Your task to perform on an android device: turn off notifications settings in the gmail app Image 0: 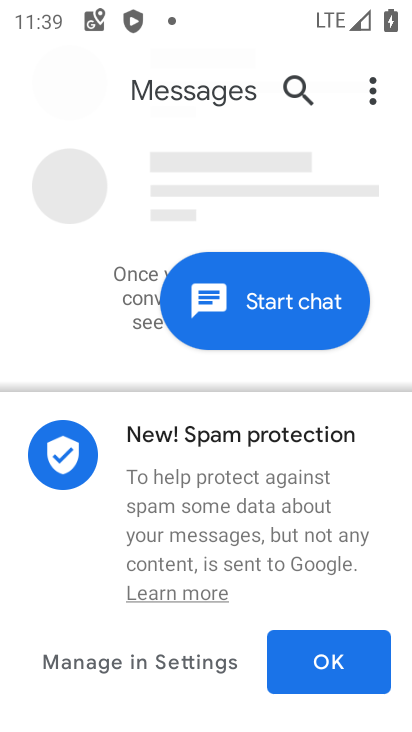
Step 0: press home button
Your task to perform on an android device: turn off notifications settings in the gmail app Image 1: 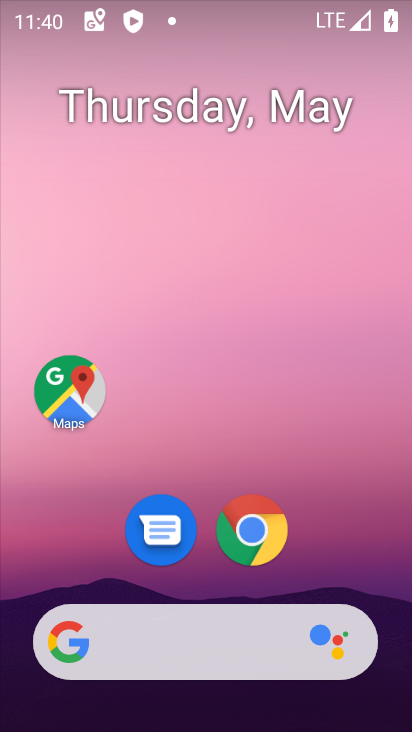
Step 1: drag from (244, 716) to (317, 5)
Your task to perform on an android device: turn off notifications settings in the gmail app Image 2: 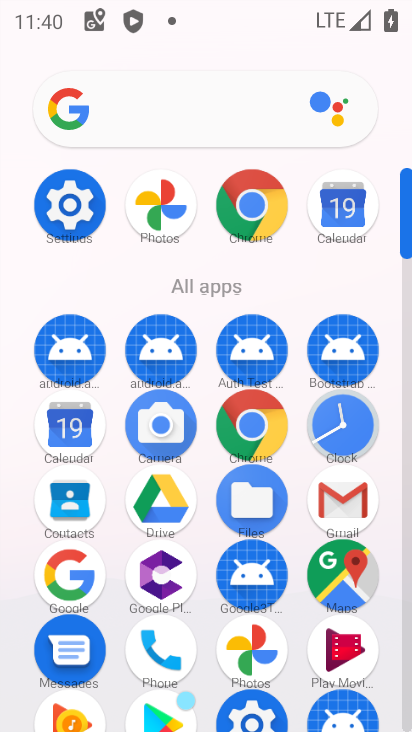
Step 2: click (359, 497)
Your task to perform on an android device: turn off notifications settings in the gmail app Image 3: 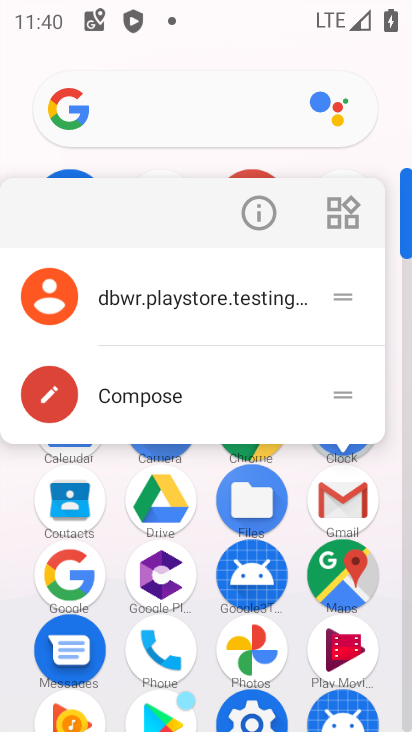
Step 3: click (265, 214)
Your task to perform on an android device: turn off notifications settings in the gmail app Image 4: 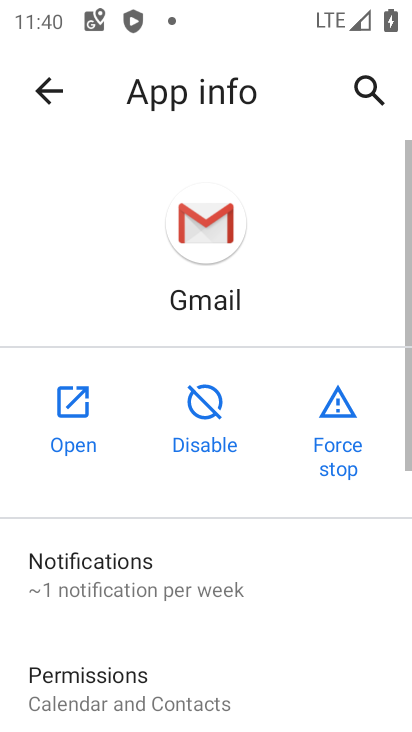
Step 4: click (183, 580)
Your task to perform on an android device: turn off notifications settings in the gmail app Image 5: 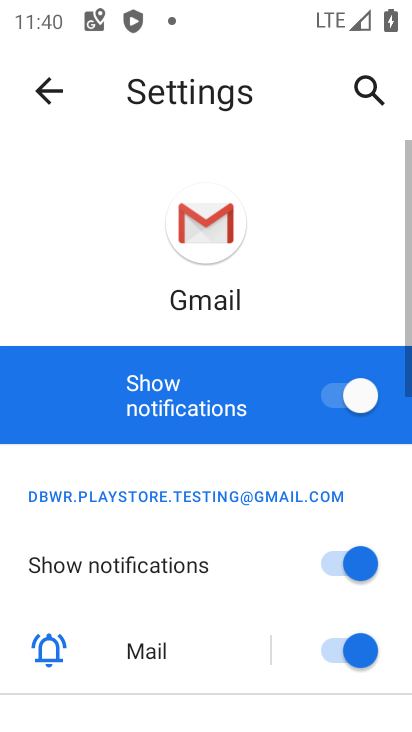
Step 5: click (359, 385)
Your task to perform on an android device: turn off notifications settings in the gmail app Image 6: 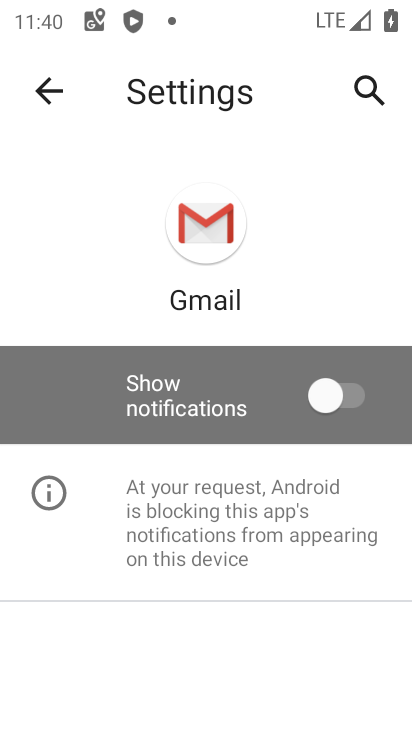
Step 6: task complete